Your task to perform on an android device: move a message to another label in the gmail app Image 0: 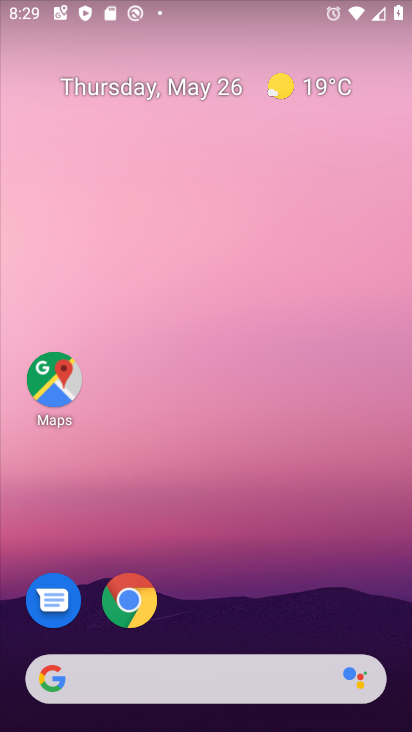
Step 0: press home button
Your task to perform on an android device: move a message to another label in the gmail app Image 1: 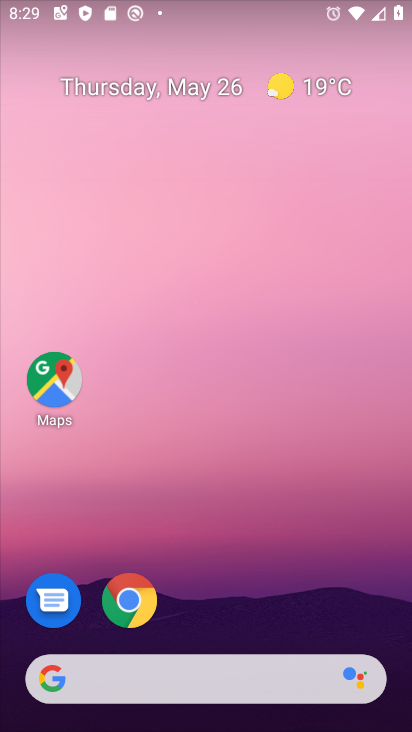
Step 1: drag from (221, 573) to (265, 250)
Your task to perform on an android device: move a message to another label in the gmail app Image 2: 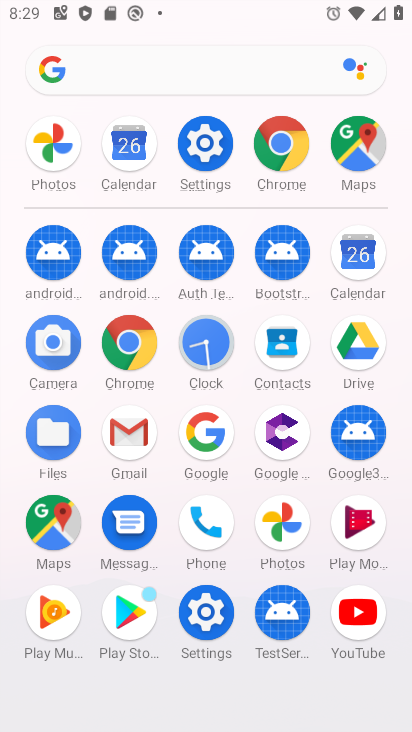
Step 2: click (134, 444)
Your task to perform on an android device: move a message to another label in the gmail app Image 3: 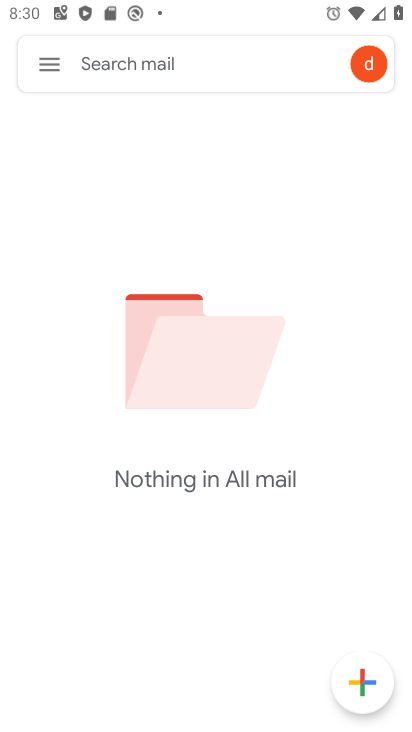
Step 3: click (52, 71)
Your task to perform on an android device: move a message to another label in the gmail app Image 4: 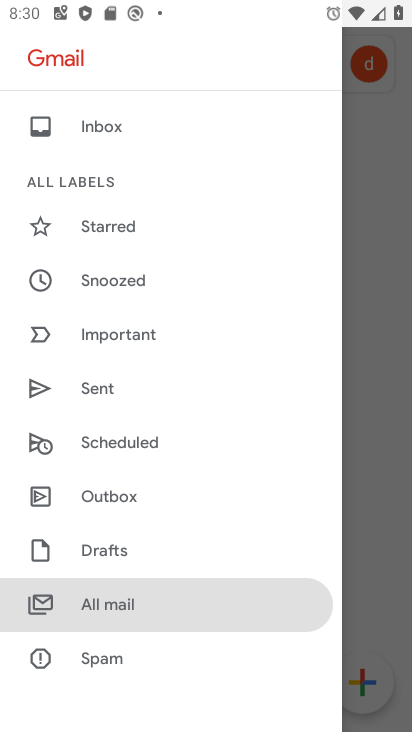
Step 4: click (109, 611)
Your task to perform on an android device: move a message to another label in the gmail app Image 5: 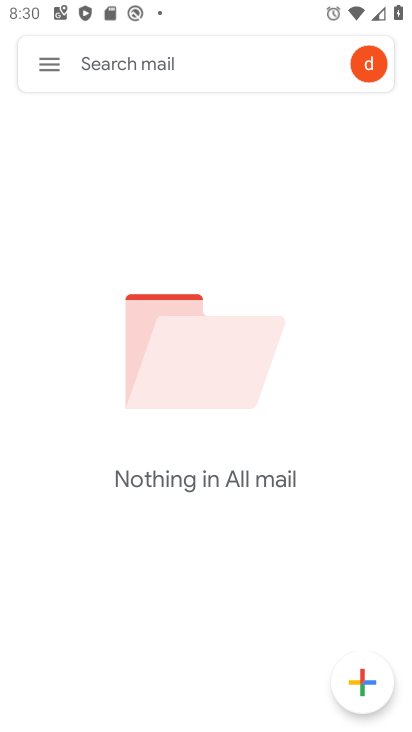
Step 5: task complete